Your task to perform on an android device: When is my next meeting? Image 0: 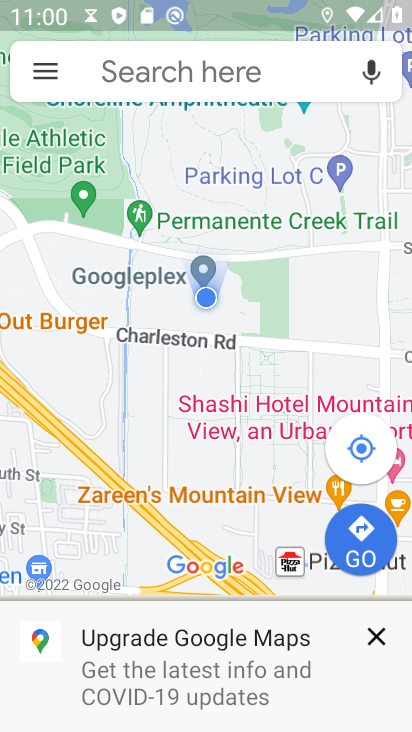
Step 0: press home button
Your task to perform on an android device: When is my next meeting? Image 1: 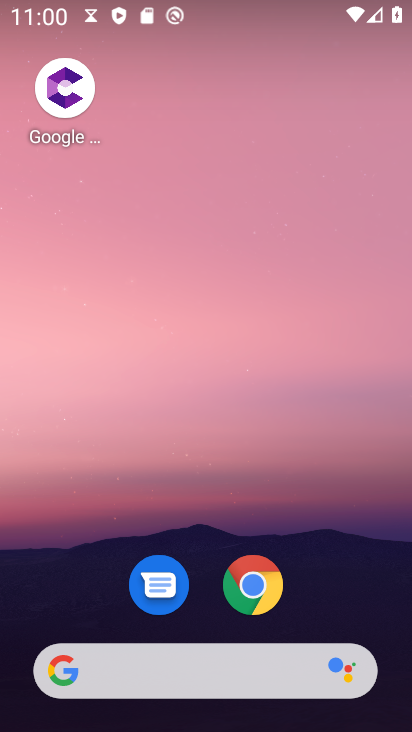
Step 1: drag from (188, 656) to (235, 173)
Your task to perform on an android device: When is my next meeting? Image 2: 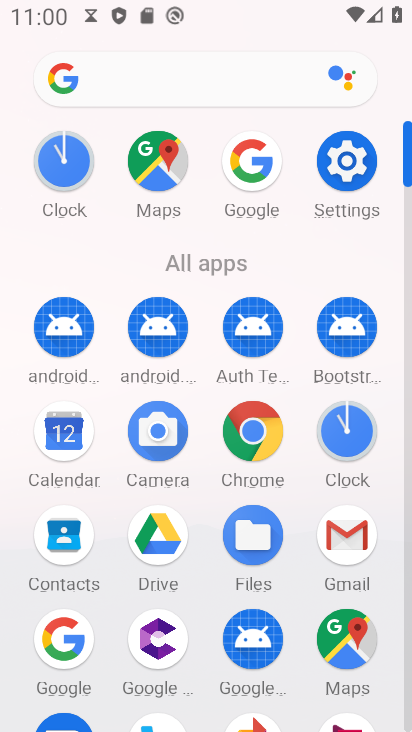
Step 2: click (69, 439)
Your task to perform on an android device: When is my next meeting? Image 3: 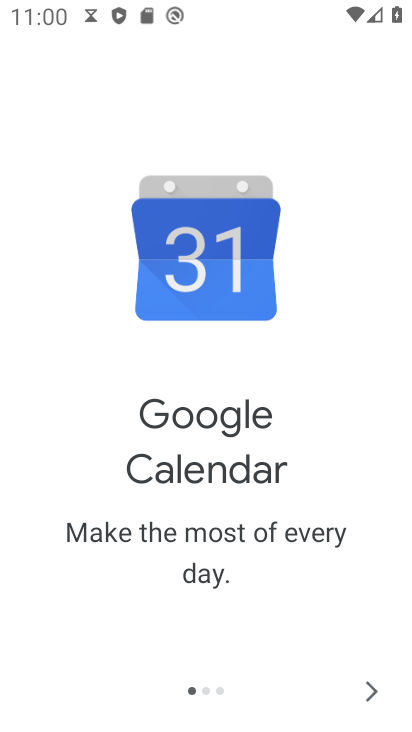
Step 3: click (372, 692)
Your task to perform on an android device: When is my next meeting? Image 4: 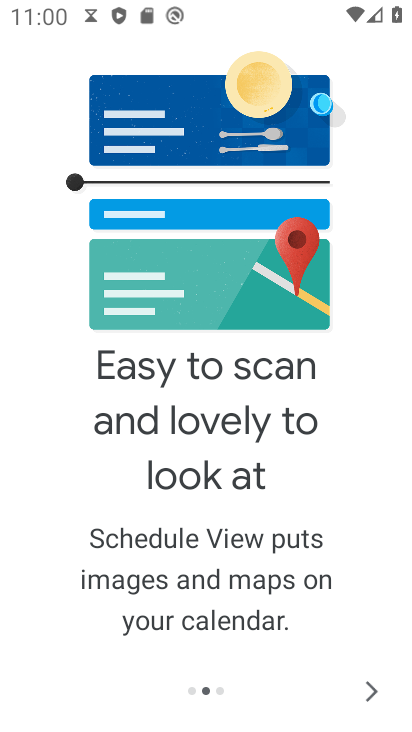
Step 4: click (372, 692)
Your task to perform on an android device: When is my next meeting? Image 5: 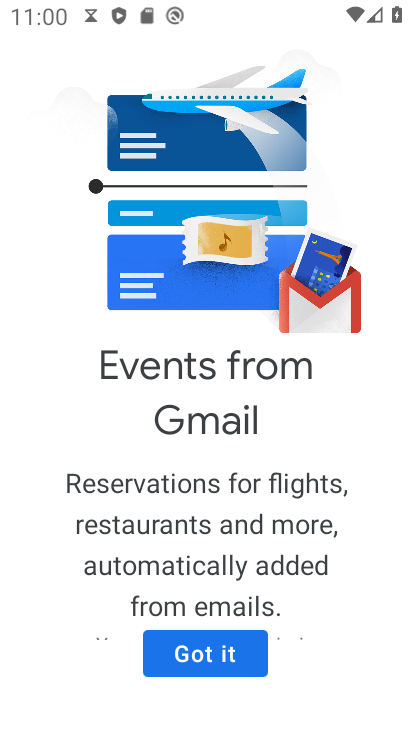
Step 5: click (206, 661)
Your task to perform on an android device: When is my next meeting? Image 6: 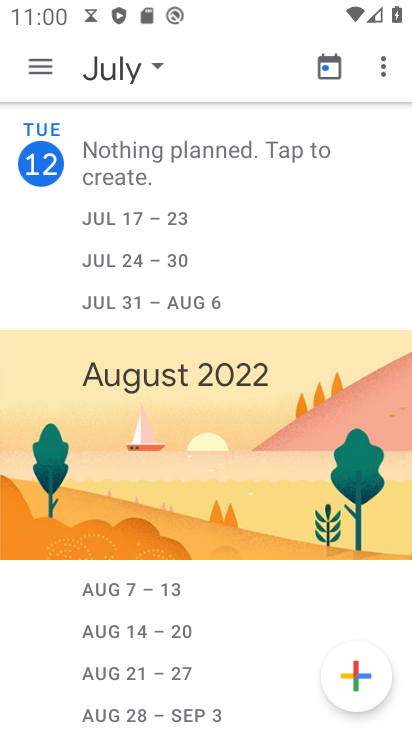
Step 6: click (47, 72)
Your task to perform on an android device: When is my next meeting? Image 7: 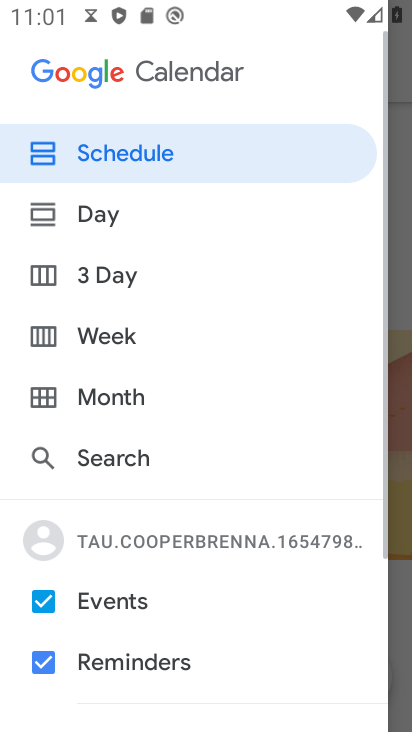
Step 7: click (136, 151)
Your task to perform on an android device: When is my next meeting? Image 8: 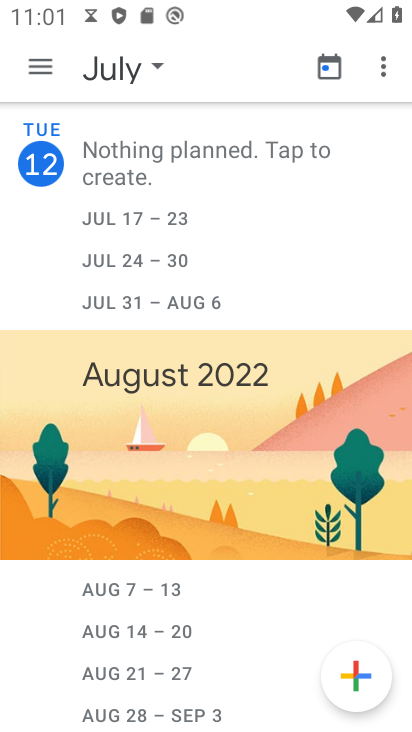
Step 8: task complete